Your task to perform on an android device: turn on airplane mode Image 0: 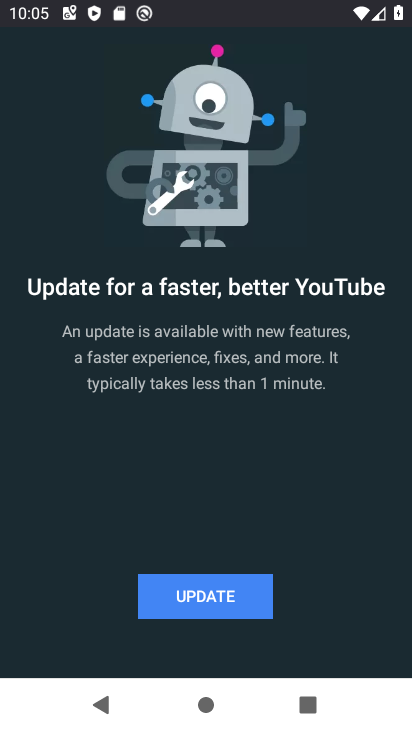
Step 0: press back button
Your task to perform on an android device: turn on airplane mode Image 1: 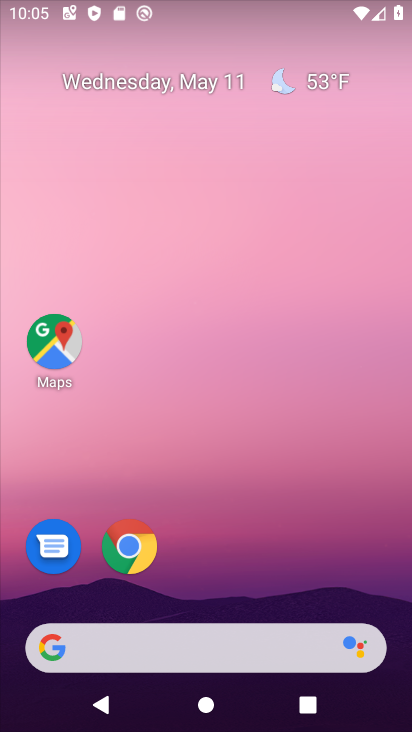
Step 1: drag from (293, 2) to (356, 417)
Your task to perform on an android device: turn on airplane mode Image 2: 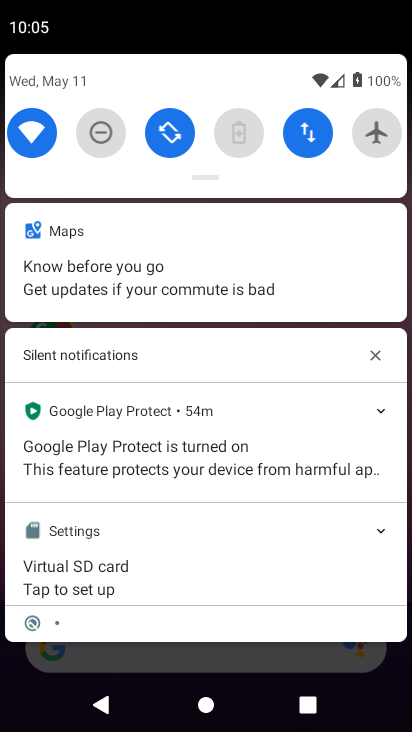
Step 2: click (374, 133)
Your task to perform on an android device: turn on airplane mode Image 3: 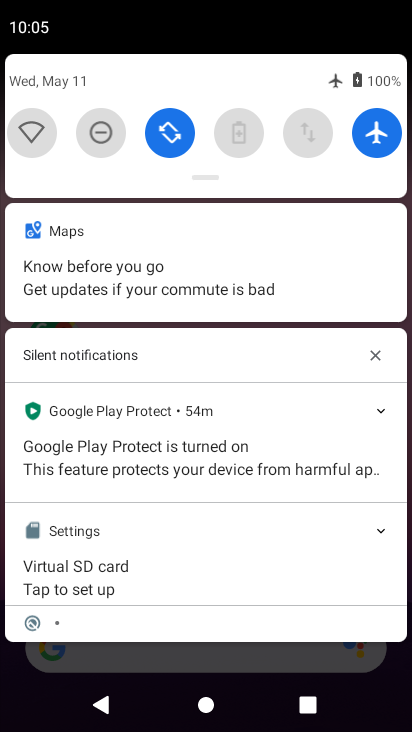
Step 3: task complete